Your task to perform on an android device: turn off notifications in google photos Image 0: 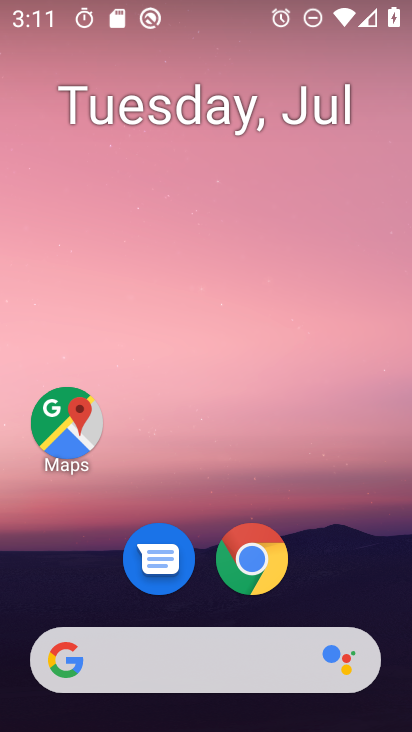
Step 0: press home button
Your task to perform on an android device: turn off notifications in google photos Image 1: 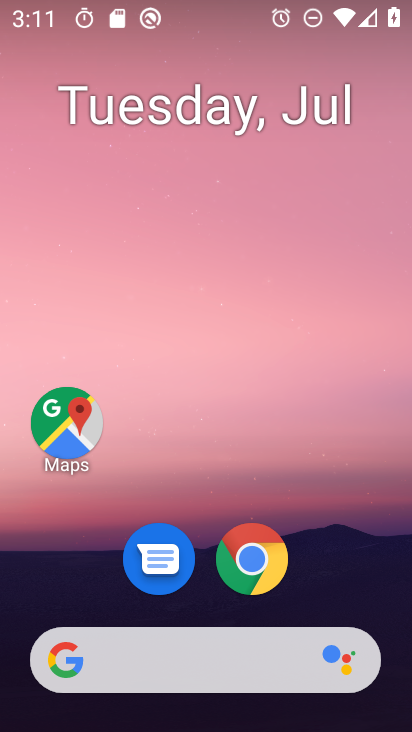
Step 1: drag from (343, 566) to (407, 404)
Your task to perform on an android device: turn off notifications in google photos Image 2: 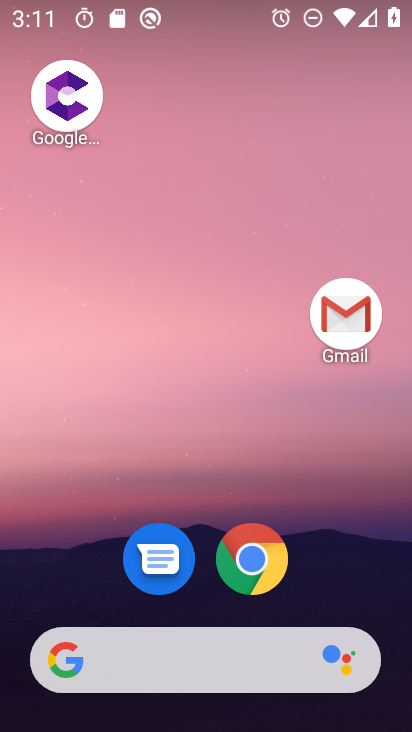
Step 2: drag from (372, 547) to (388, 107)
Your task to perform on an android device: turn off notifications in google photos Image 3: 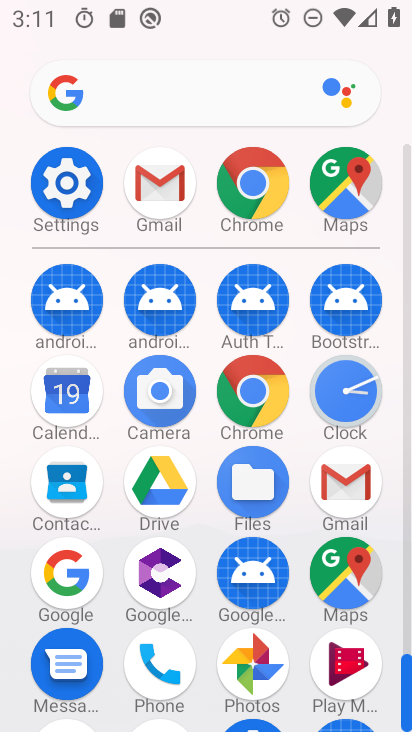
Step 3: click (259, 648)
Your task to perform on an android device: turn off notifications in google photos Image 4: 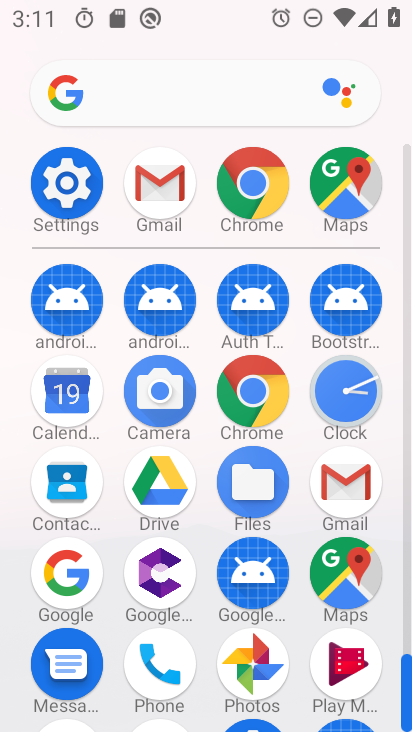
Step 4: click (256, 671)
Your task to perform on an android device: turn off notifications in google photos Image 5: 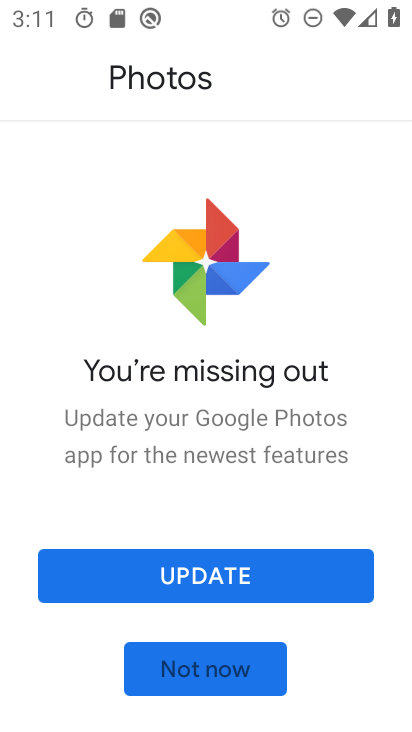
Step 5: click (265, 584)
Your task to perform on an android device: turn off notifications in google photos Image 6: 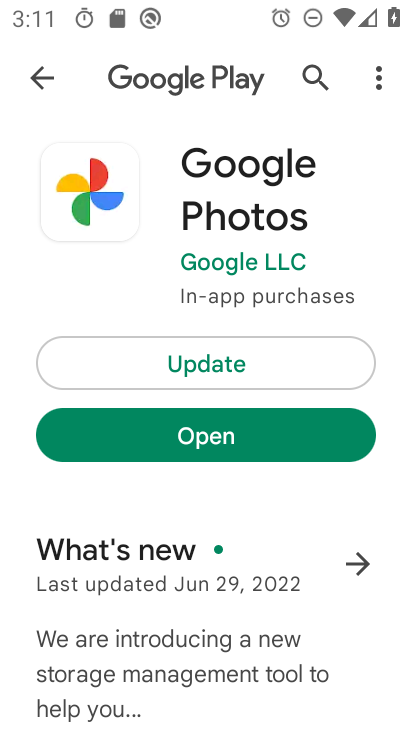
Step 6: click (259, 368)
Your task to perform on an android device: turn off notifications in google photos Image 7: 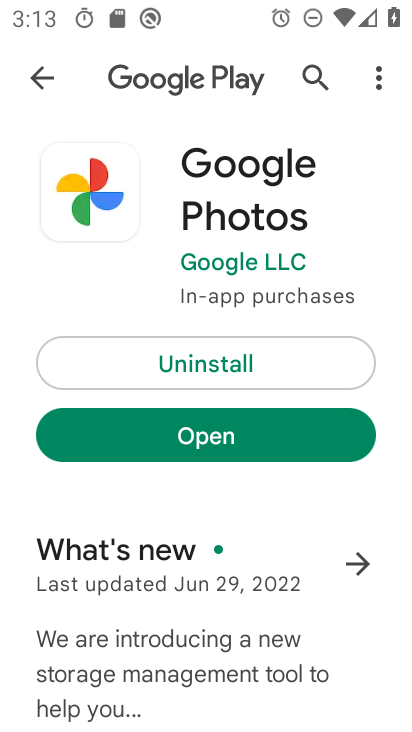
Step 7: click (308, 442)
Your task to perform on an android device: turn off notifications in google photos Image 8: 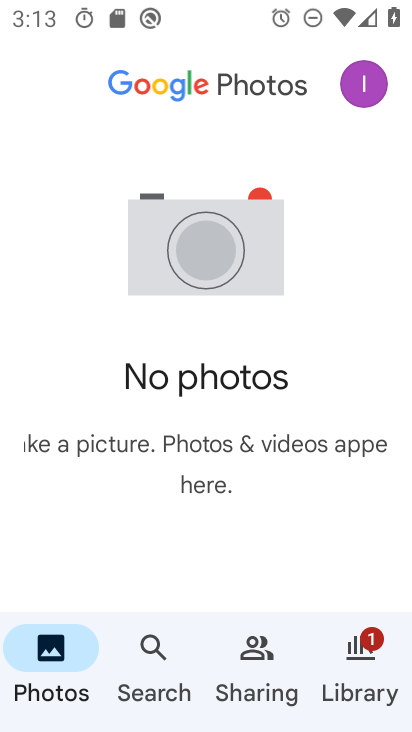
Step 8: click (369, 79)
Your task to perform on an android device: turn off notifications in google photos Image 9: 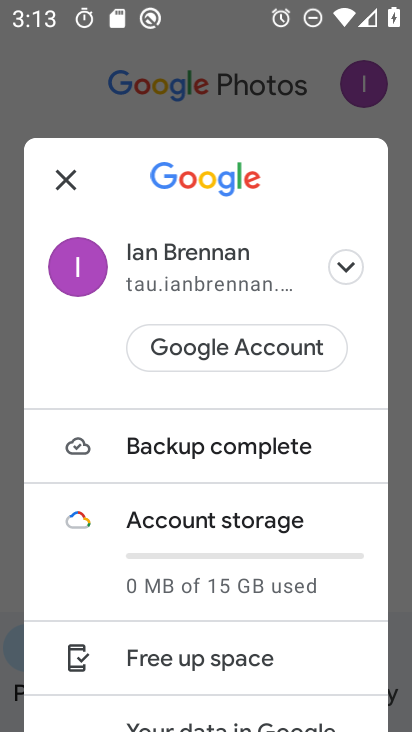
Step 9: drag from (324, 612) to (354, 335)
Your task to perform on an android device: turn off notifications in google photos Image 10: 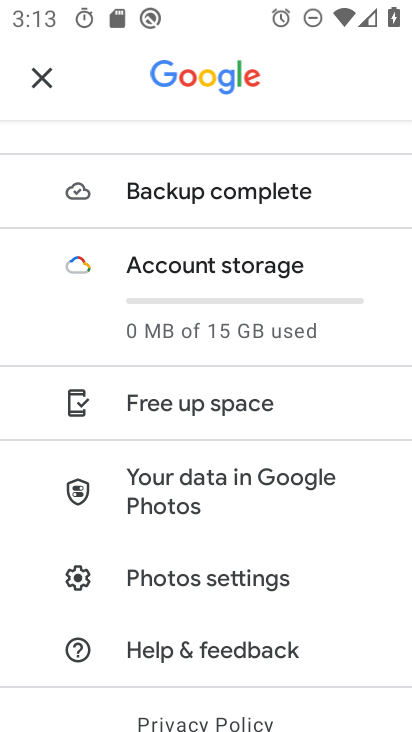
Step 10: click (341, 578)
Your task to perform on an android device: turn off notifications in google photos Image 11: 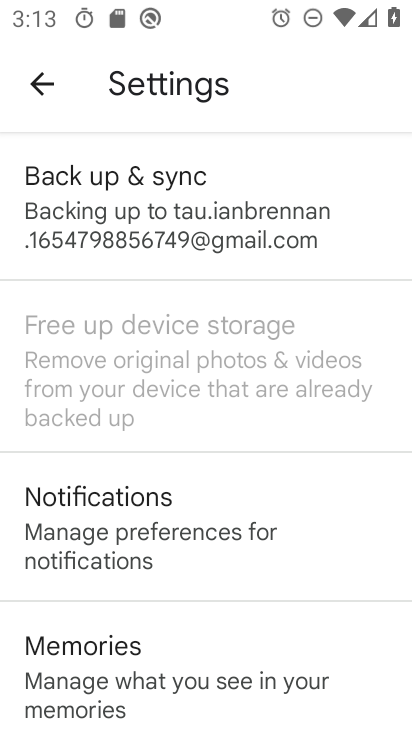
Step 11: click (294, 537)
Your task to perform on an android device: turn off notifications in google photos Image 12: 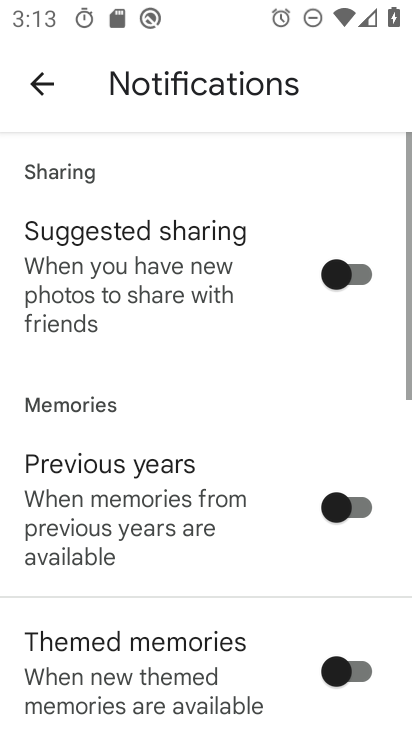
Step 12: drag from (282, 557) to (284, 464)
Your task to perform on an android device: turn off notifications in google photos Image 13: 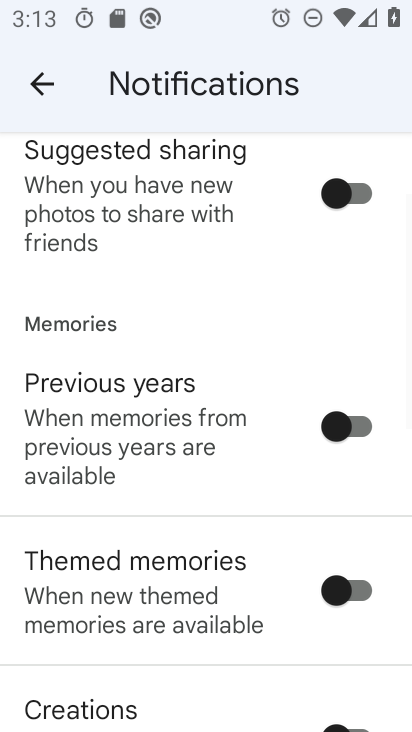
Step 13: drag from (283, 545) to (284, 422)
Your task to perform on an android device: turn off notifications in google photos Image 14: 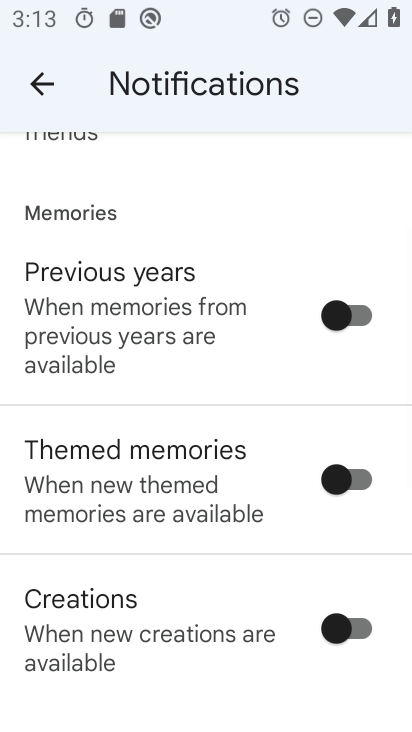
Step 14: drag from (284, 562) to (294, 459)
Your task to perform on an android device: turn off notifications in google photos Image 15: 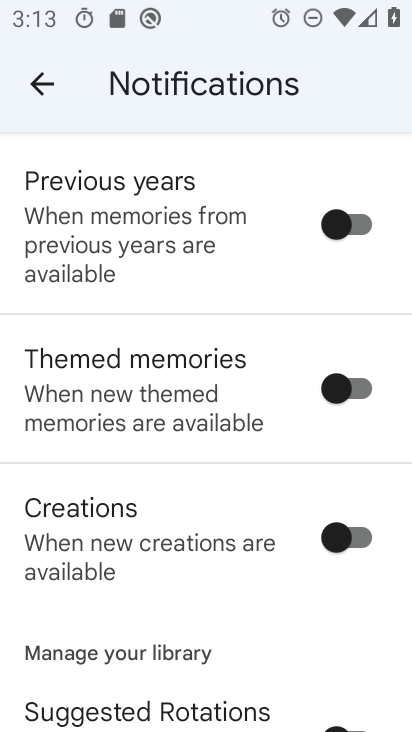
Step 15: drag from (292, 602) to (291, 492)
Your task to perform on an android device: turn off notifications in google photos Image 16: 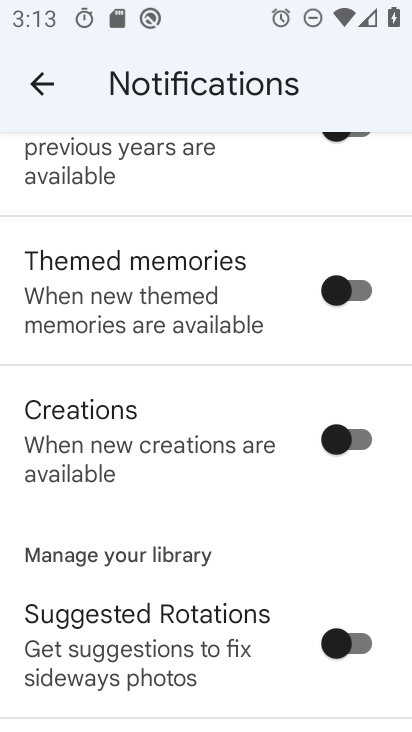
Step 16: drag from (286, 617) to (281, 404)
Your task to perform on an android device: turn off notifications in google photos Image 17: 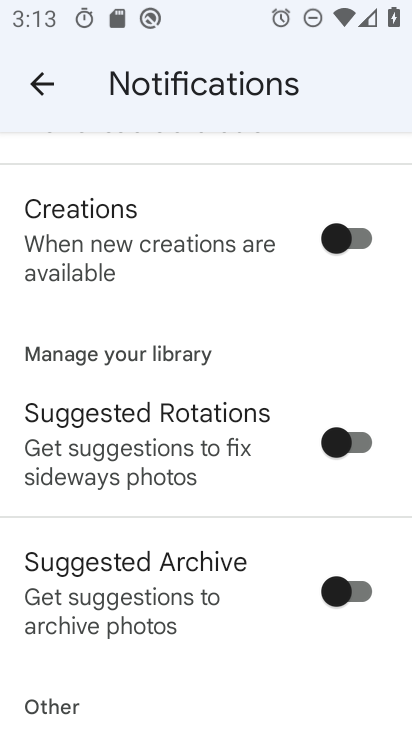
Step 17: drag from (276, 587) to (266, 367)
Your task to perform on an android device: turn off notifications in google photos Image 18: 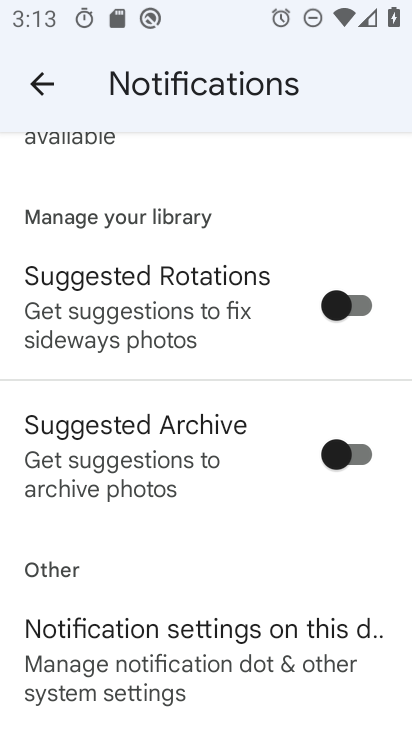
Step 18: click (287, 647)
Your task to perform on an android device: turn off notifications in google photos Image 19: 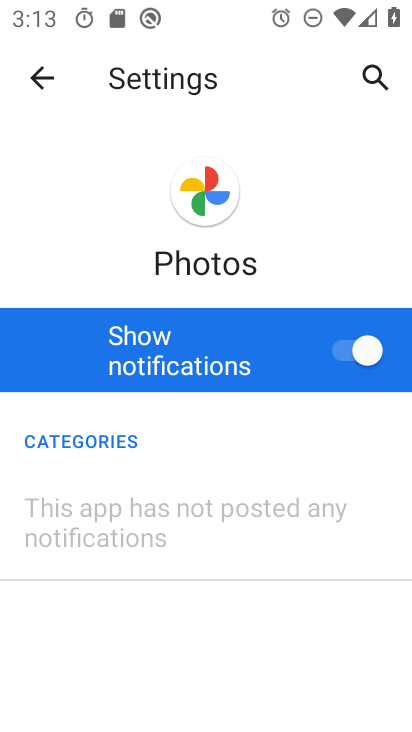
Step 19: click (364, 356)
Your task to perform on an android device: turn off notifications in google photos Image 20: 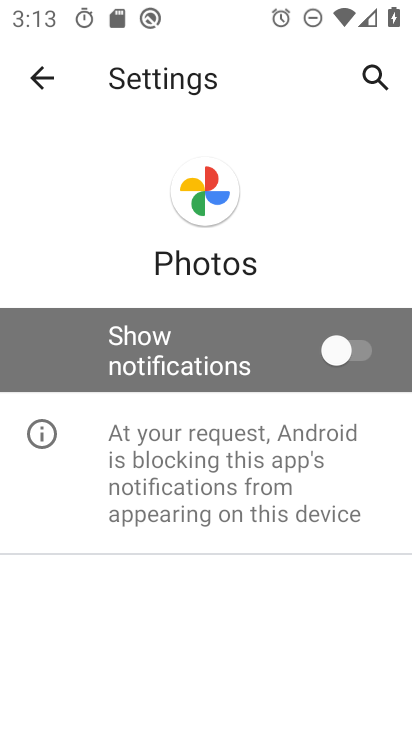
Step 20: task complete